Your task to perform on an android device: allow notifications from all sites in the chrome app Image 0: 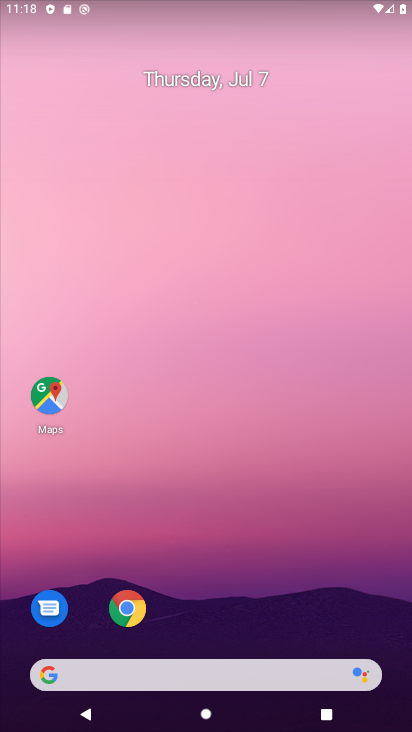
Step 0: click (122, 600)
Your task to perform on an android device: allow notifications from all sites in the chrome app Image 1: 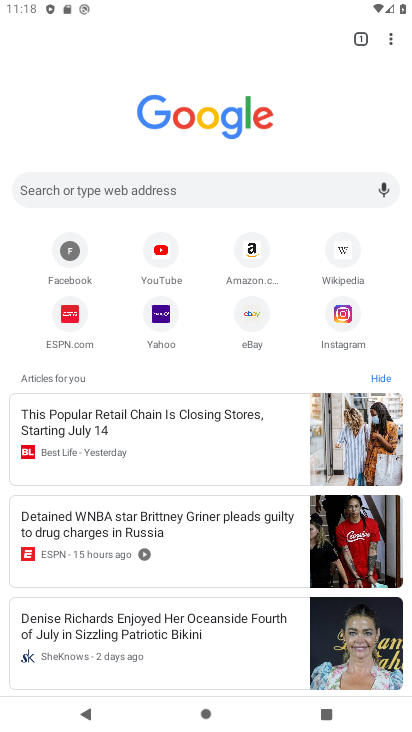
Step 1: task complete